Your task to perform on an android device: Open Google Maps Image 0: 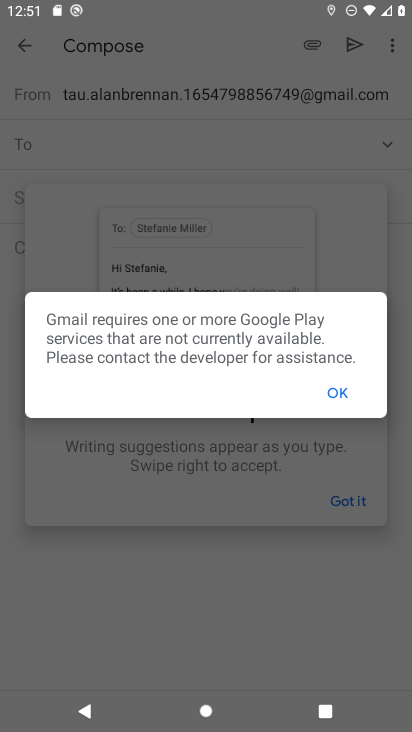
Step 0: press home button
Your task to perform on an android device: Open Google Maps Image 1: 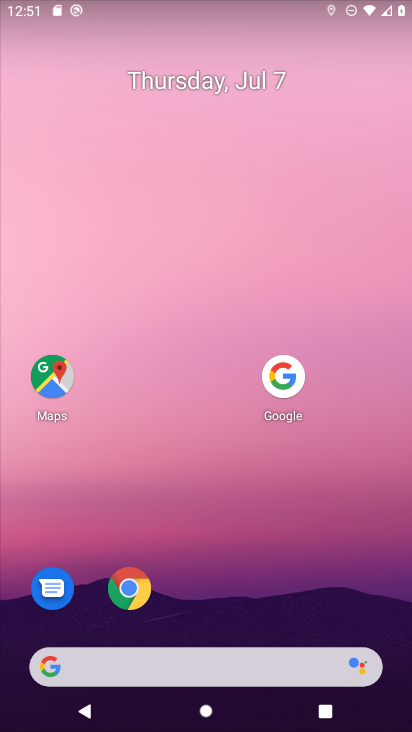
Step 1: click (49, 381)
Your task to perform on an android device: Open Google Maps Image 2: 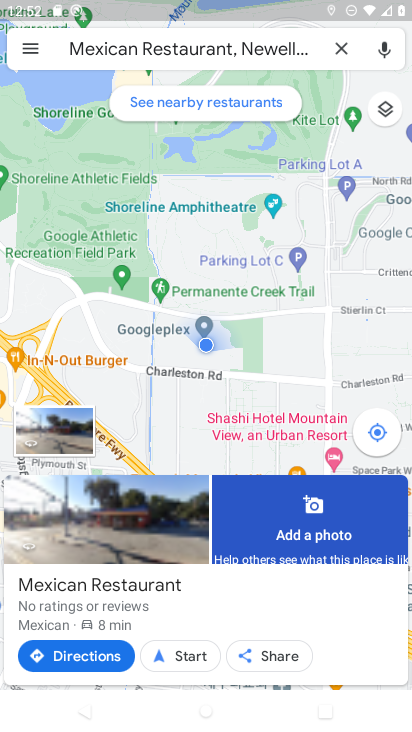
Step 2: click (342, 51)
Your task to perform on an android device: Open Google Maps Image 3: 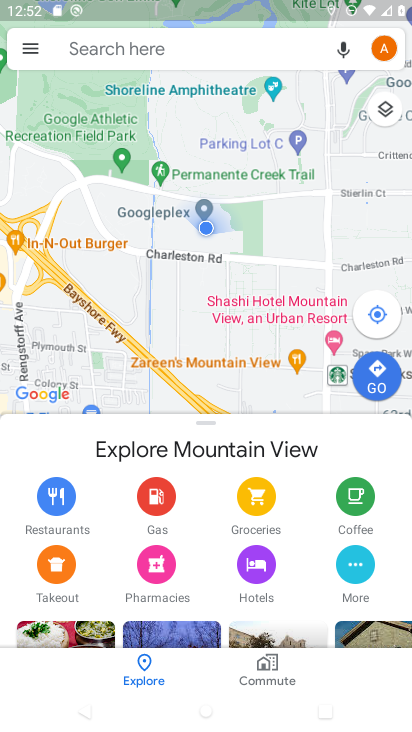
Step 3: task complete